Your task to perform on an android device: toggle sleep mode Image 0: 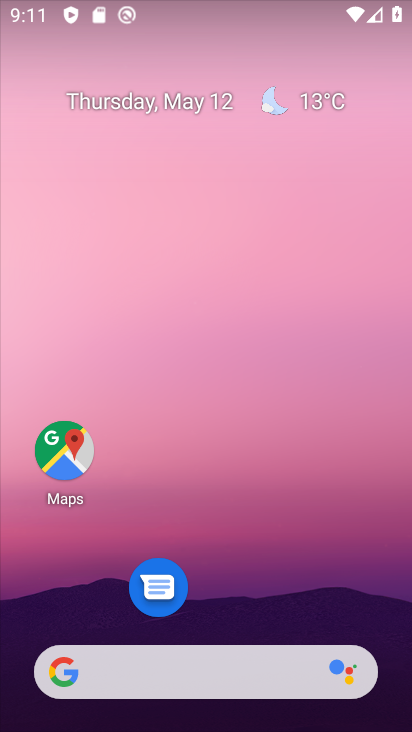
Step 0: drag from (212, 635) to (302, 108)
Your task to perform on an android device: toggle sleep mode Image 1: 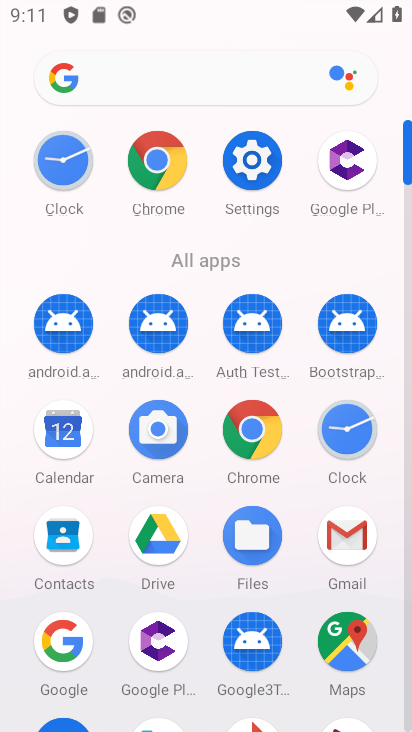
Step 1: click (244, 154)
Your task to perform on an android device: toggle sleep mode Image 2: 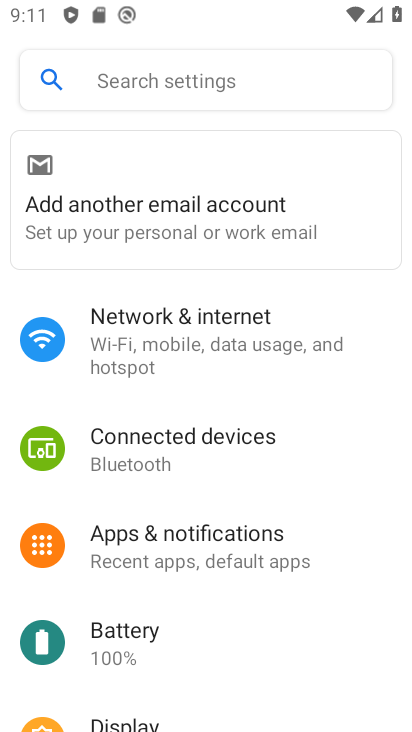
Step 2: drag from (158, 498) to (130, 64)
Your task to perform on an android device: toggle sleep mode Image 3: 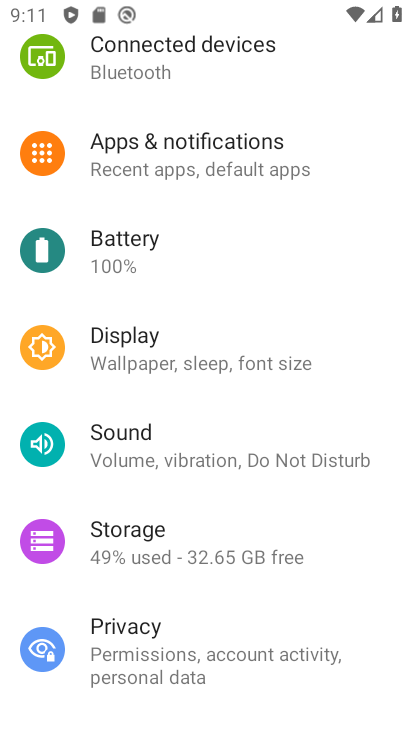
Step 3: click (145, 363)
Your task to perform on an android device: toggle sleep mode Image 4: 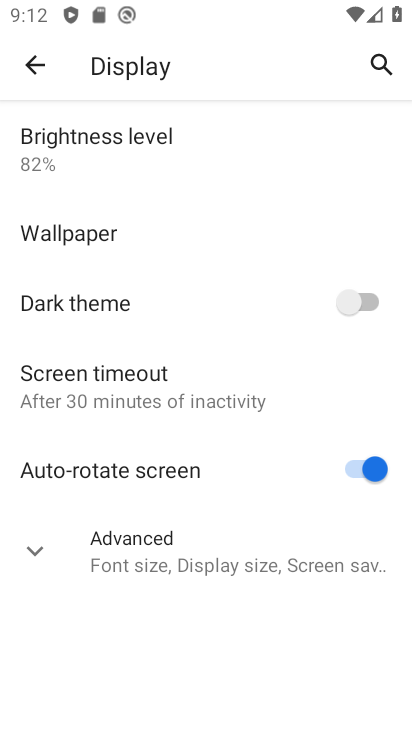
Step 4: task complete